Your task to perform on an android device: turn off wifi Image 0: 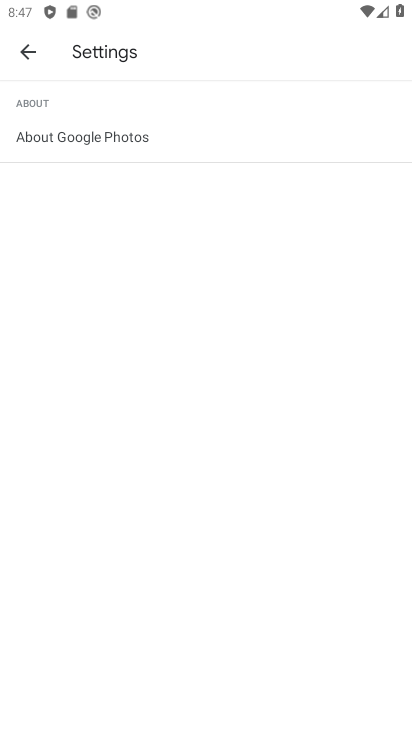
Step 0: press home button
Your task to perform on an android device: turn off wifi Image 1: 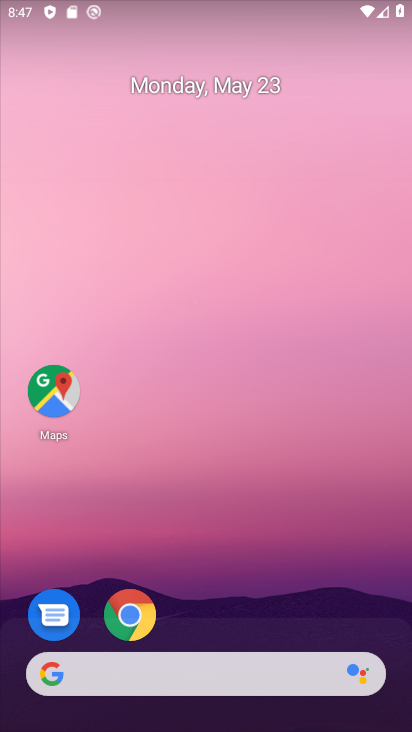
Step 1: drag from (276, 622) to (318, 46)
Your task to perform on an android device: turn off wifi Image 2: 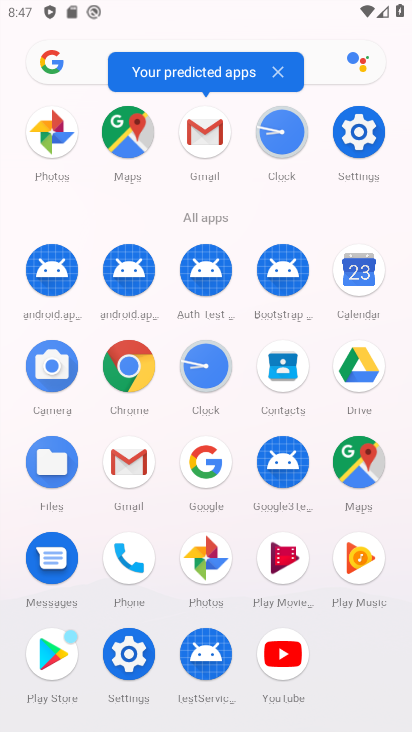
Step 2: click (360, 136)
Your task to perform on an android device: turn off wifi Image 3: 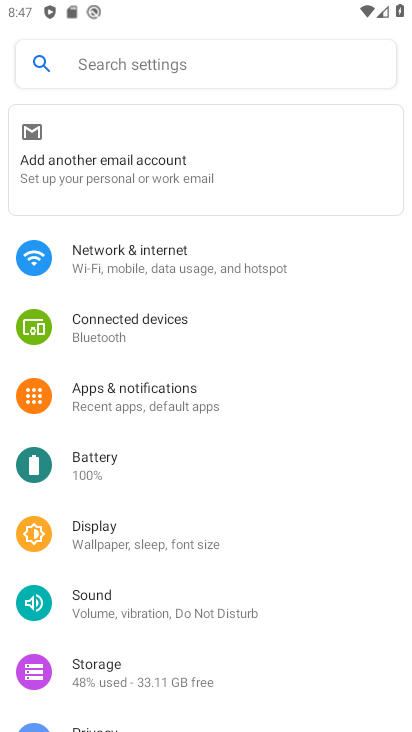
Step 3: click (151, 265)
Your task to perform on an android device: turn off wifi Image 4: 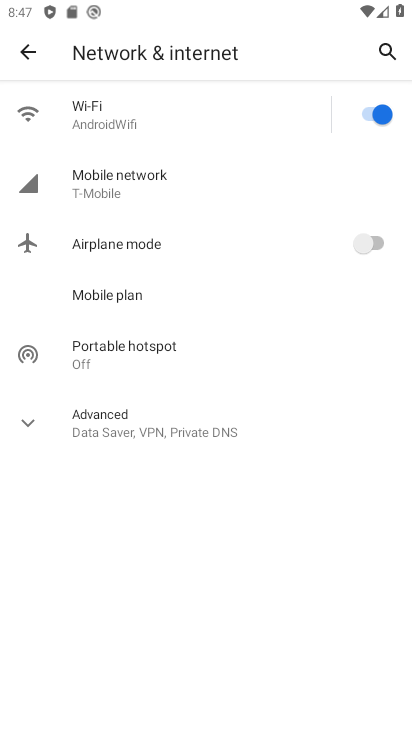
Step 4: click (368, 117)
Your task to perform on an android device: turn off wifi Image 5: 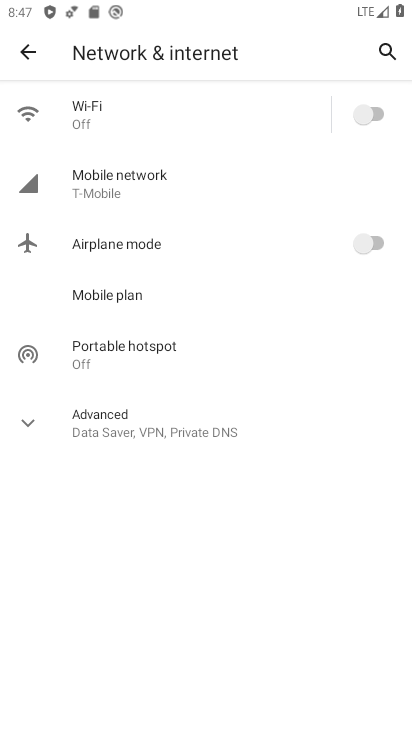
Step 5: task complete